Your task to perform on an android device: change the upload size in google photos Image 0: 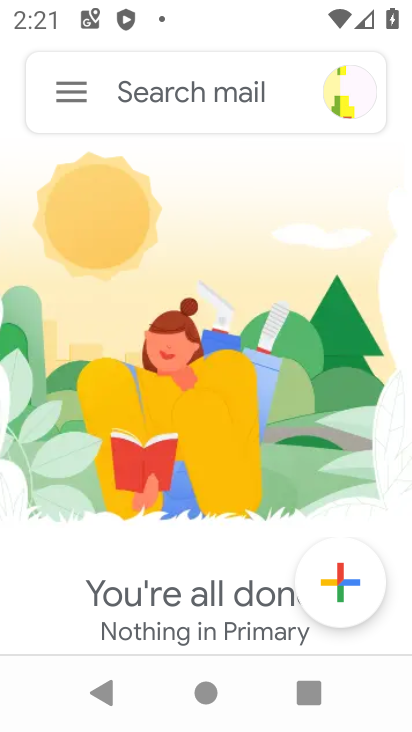
Step 0: click (80, 90)
Your task to perform on an android device: change the upload size in google photos Image 1: 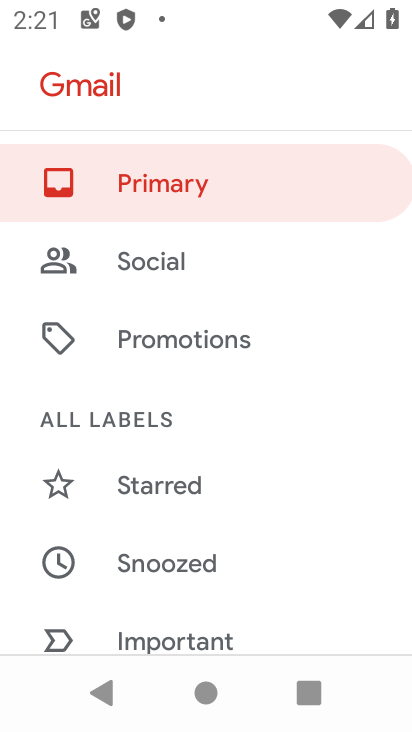
Step 1: press home button
Your task to perform on an android device: change the upload size in google photos Image 2: 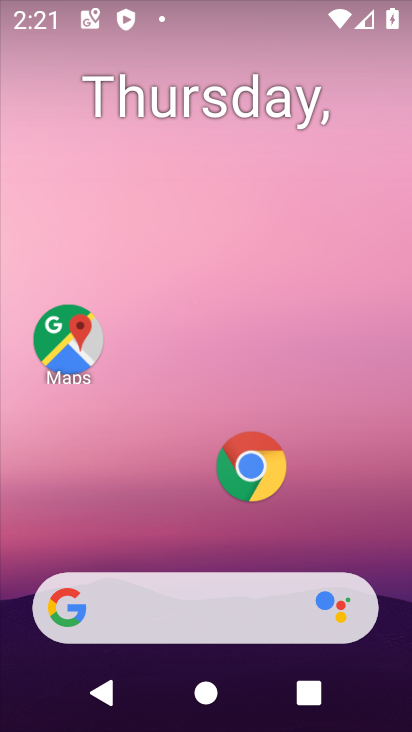
Step 2: drag from (177, 545) to (170, 173)
Your task to perform on an android device: change the upload size in google photos Image 3: 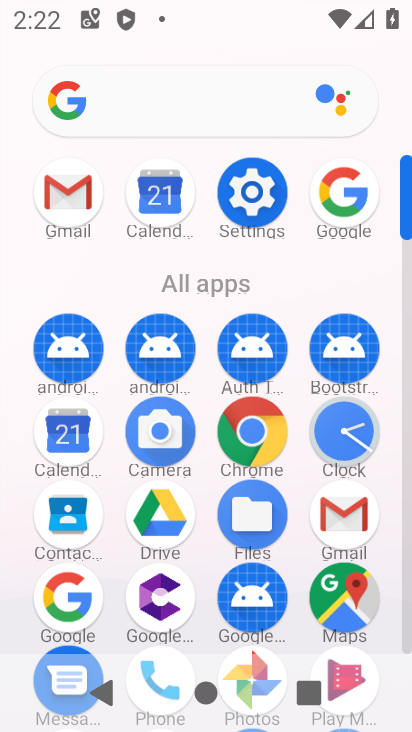
Step 3: drag from (205, 553) to (205, 253)
Your task to perform on an android device: change the upload size in google photos Image 4: 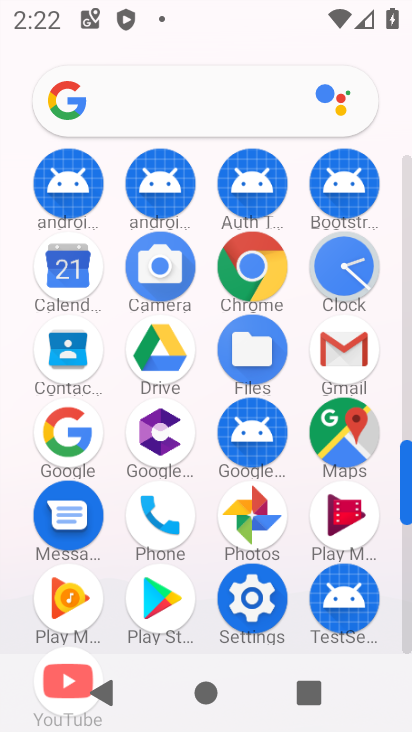
Step 4: click (256, 521)
Your task to perform on an android device: change the upload size in google photos Image 5: 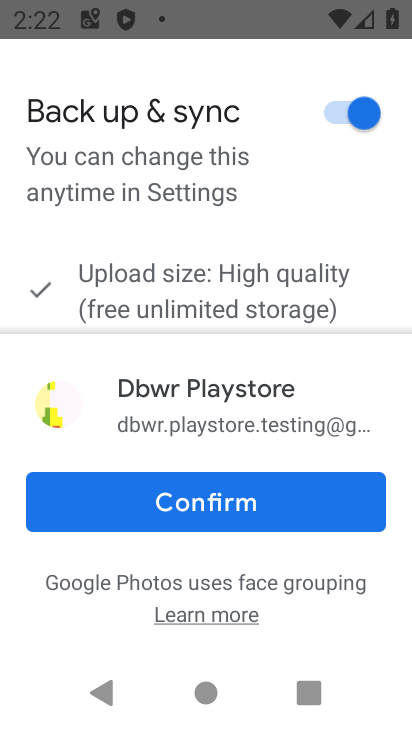
Step 5: click (237, 494)
Your task to perform on an android device: change the upload size in google photos Image 6: 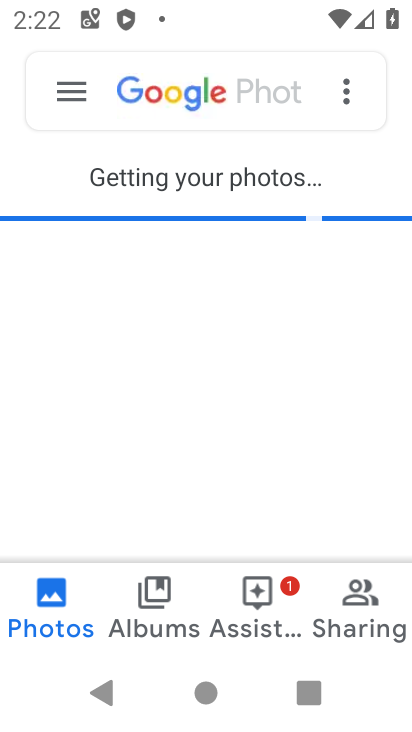
Step 6: click (79, 95)
Your task to perform on an android device: change the upload size in google photos Image 7: 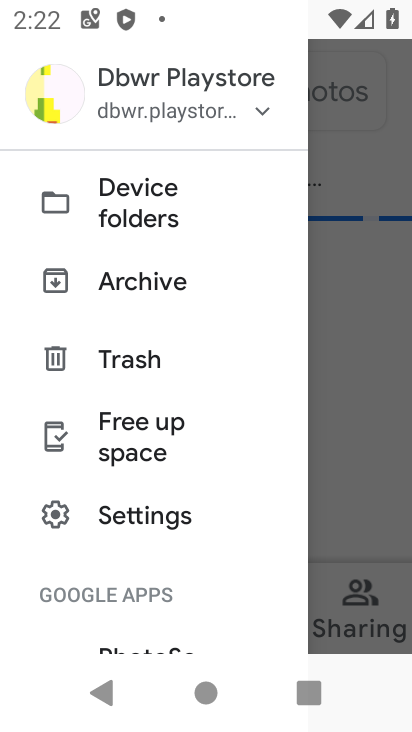
Step 7: drag from (169, 529) to (169, 134)
Your task to perform on an android device: change the upload size in google photos Image 8: 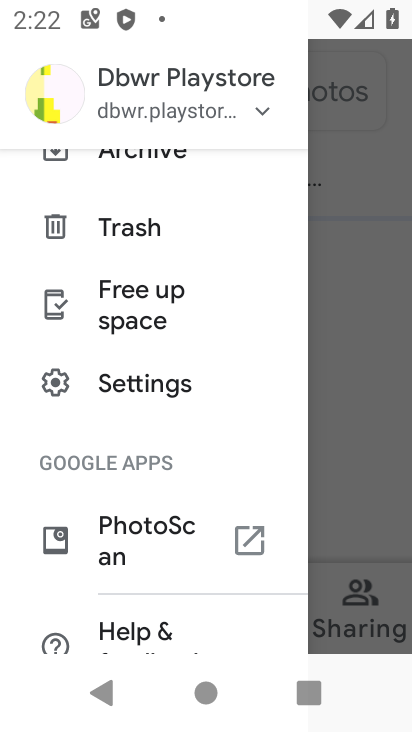
Step 8: drag from (172, 565) to (170, 266)
Your task to perform on an android device: change the upload size in google photos Image 9: 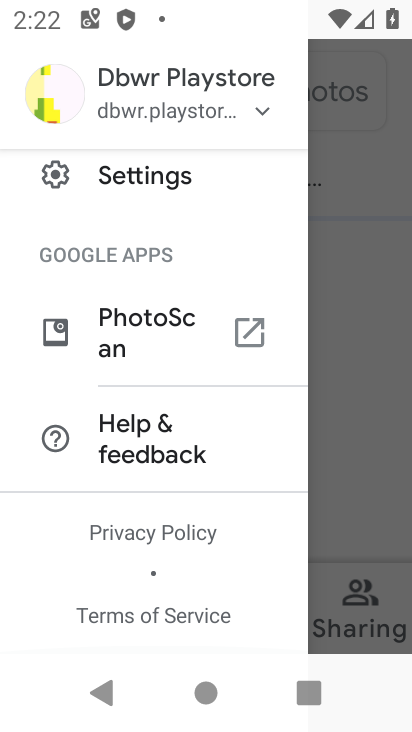
Step 9: click (151, 171)
Your task to perform on an android device: change the upload size in google photos Image 10: 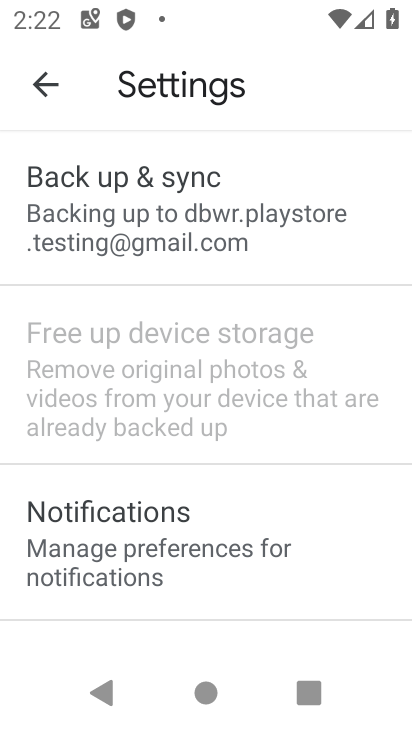
Step 10: drag from (189, 551) to (211, 417)
Your task to perform on an android device: change the upload size in google photos Image 11: 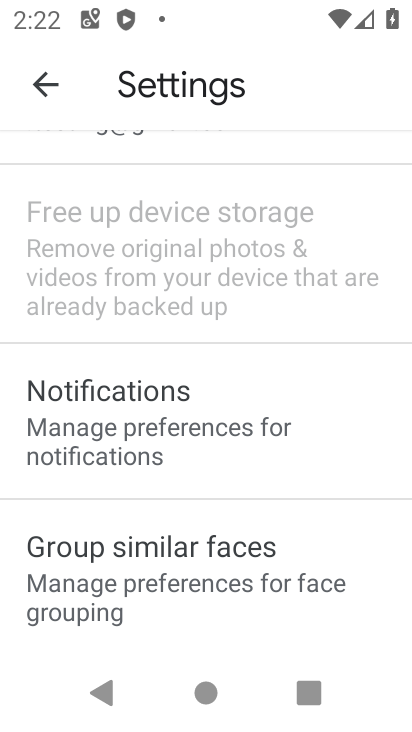
Step 11: drag from (189, 278) to (202, 463)
Your task to perform on an android device: change the upload size in google photos Image 12: 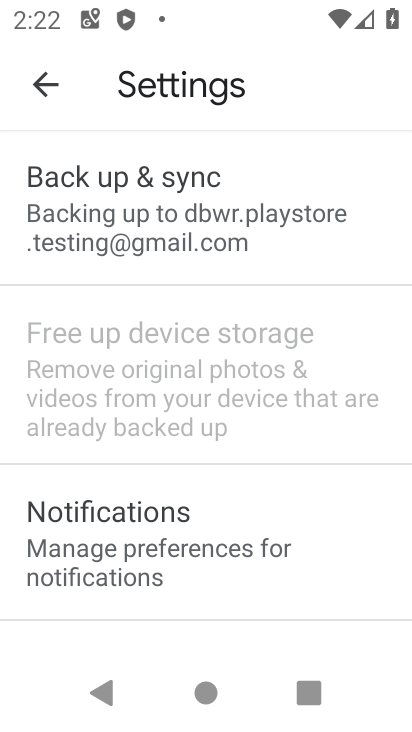
Step 12: click (145, 233)
Your task to perform on an android device: change the upload size in google photos Image 13: 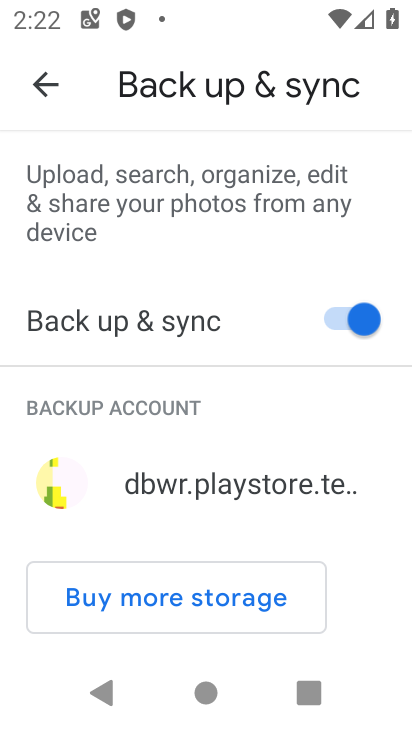
Step 13: drag from (242, 531) to (233, 179)
Your task to perform on an android device: change the upload size in google photos Image 14: 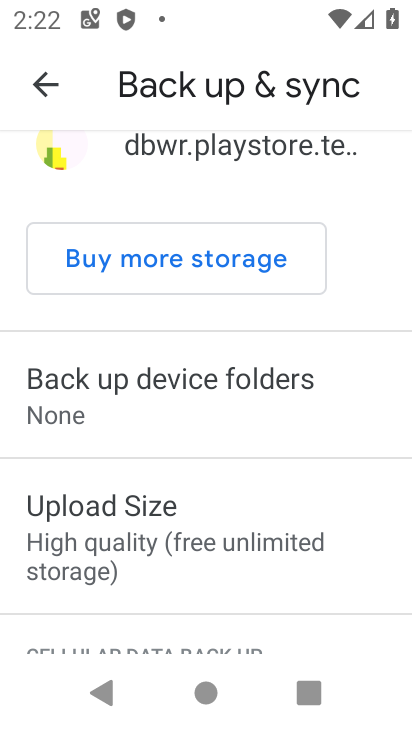
Step 14: click (226, 529)
Your task to perform on an android device: change the upload size in google photos Image 15: 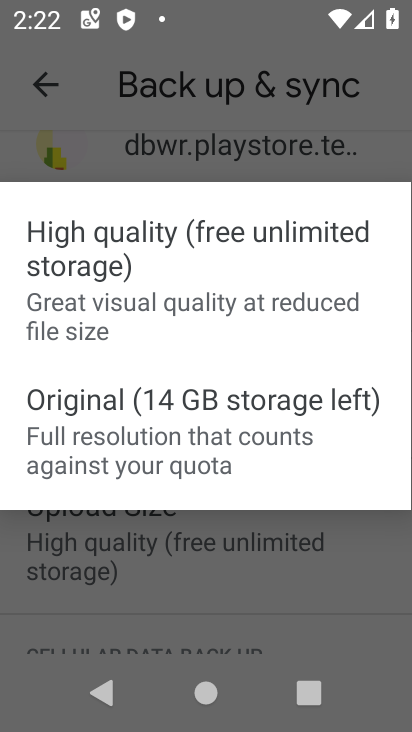
Step 15: click (165, 448)
Your task to perform on an android device: change the upload size in google photos Image 16: 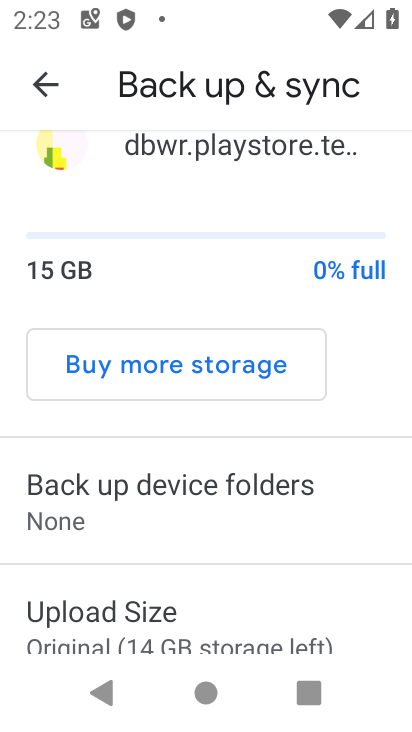
Step 16: task complete